Your task to perform on an android device: move an email to a new category in the gmail app Image 0: 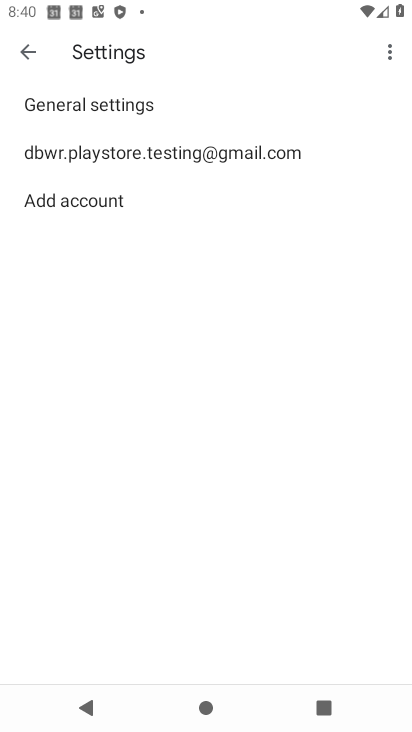
Step 0: click (23, 38)
Your task to perform on an android device: move an email to a new category in the gmail app Image 1: 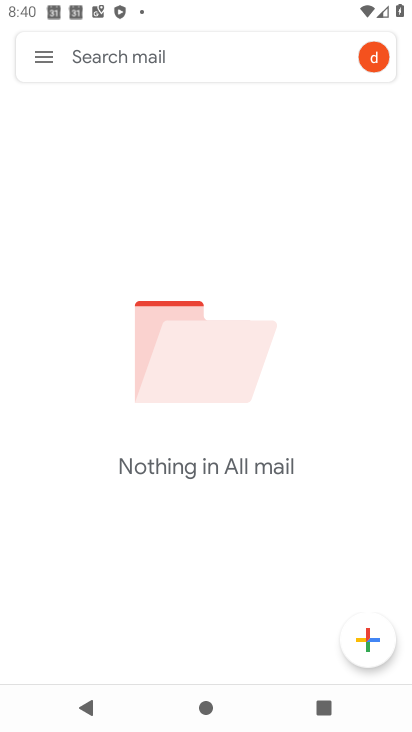
Step 1: task complete